Your task to perform on an android device: show emergency info Image 0: 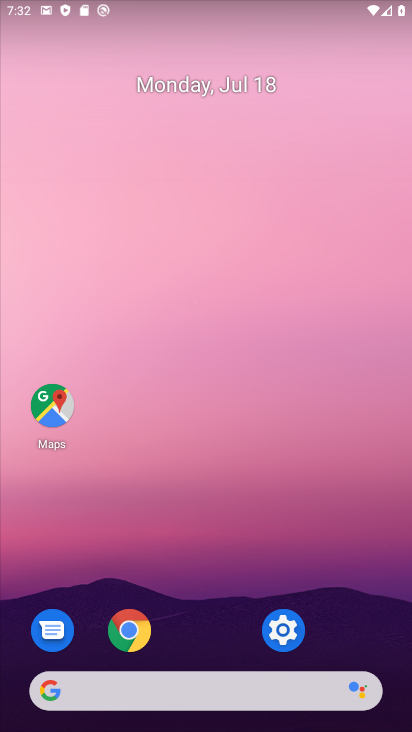
Step 0: click (278, 629)
Your task to perform on an android device: show emergency info Image 1: 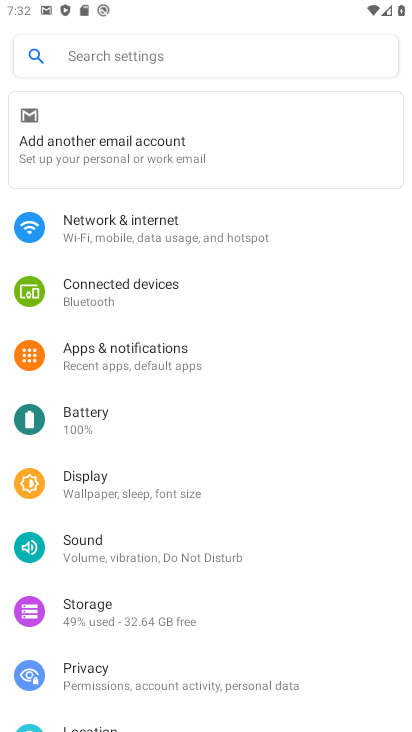
Step 1: click (113, 58)
Your task to perform on an android device: show emergency info Image 2: 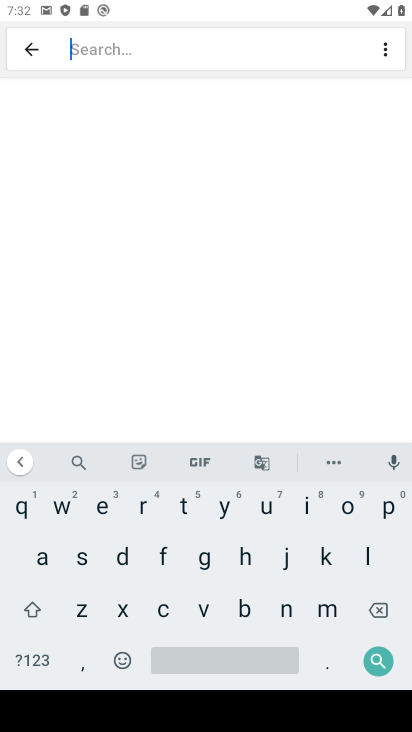
Step 2: click (104, 508)
Your task to perform on an android device: show emergency info Image 3: 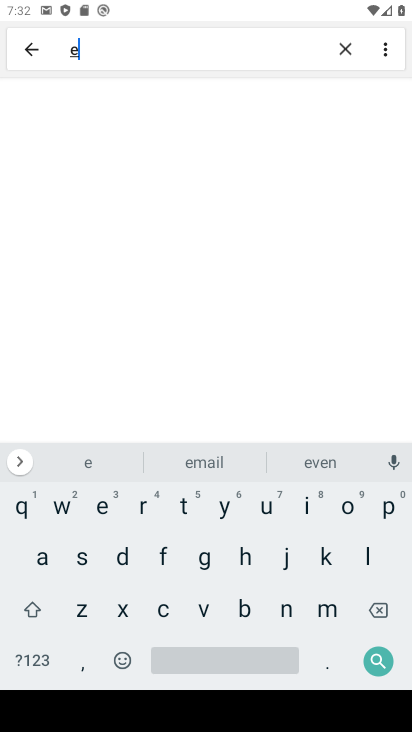
Step 3: click (330, 609)
Your task to perform on an android device: show emergency info Image 4: 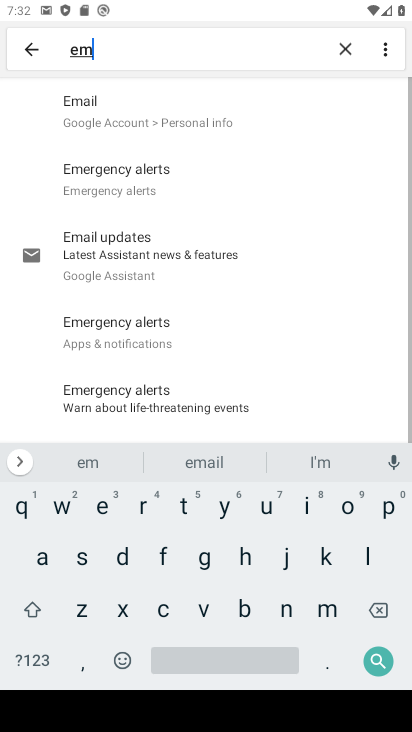
Step 4: click (102, 504)
Your task to perform on an android device: show emergency info Image 5: 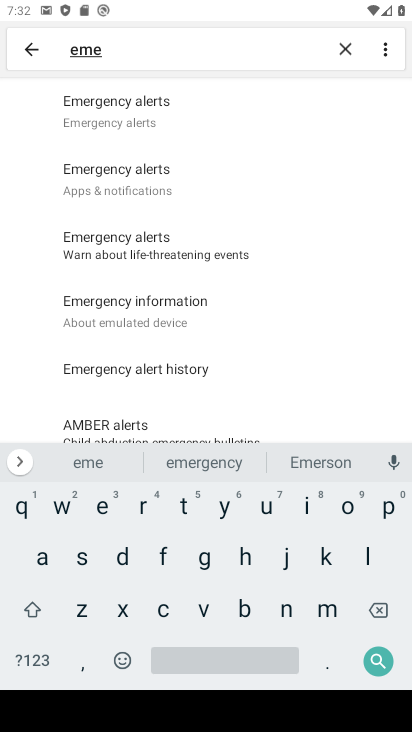
Step 5: click (203, 463)
Your task to perform on an android device: show emergency info Image 6: 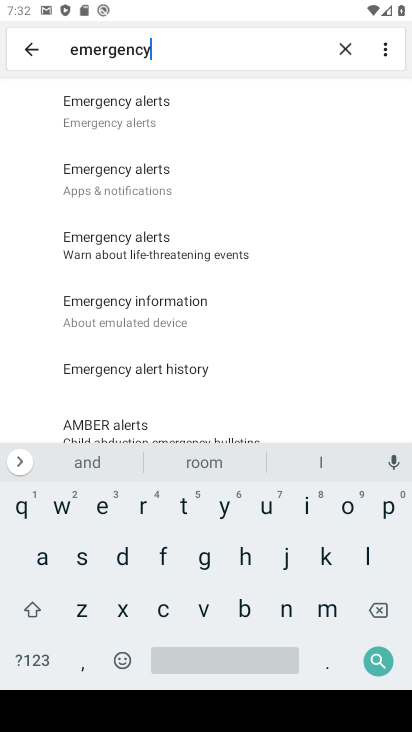
Step 6: click (300, 498)
Your task to perform on an android device: show emergency info Image 7: 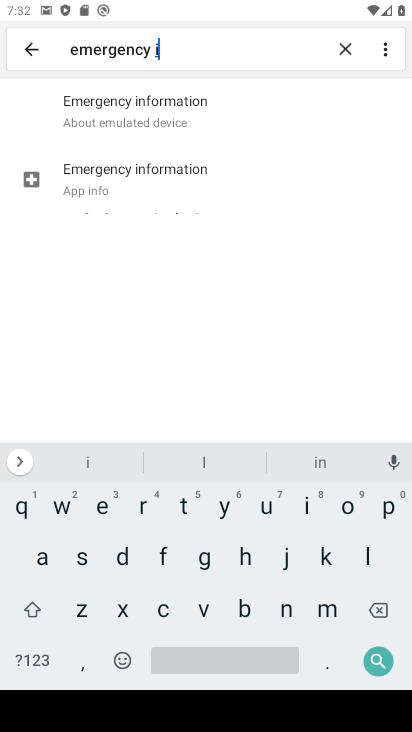
Step 7: click (171, 106)
Your task to perform on an android device: show emergency info Image 8: 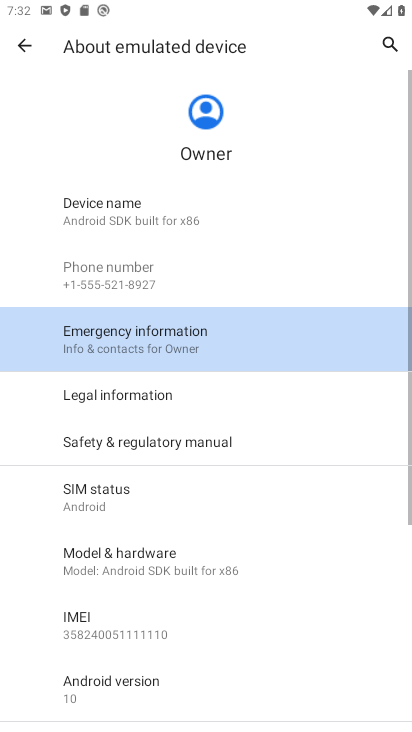
Step 8: click (121, 314)
Your task to perform on an android device: show emergency info Image 9: 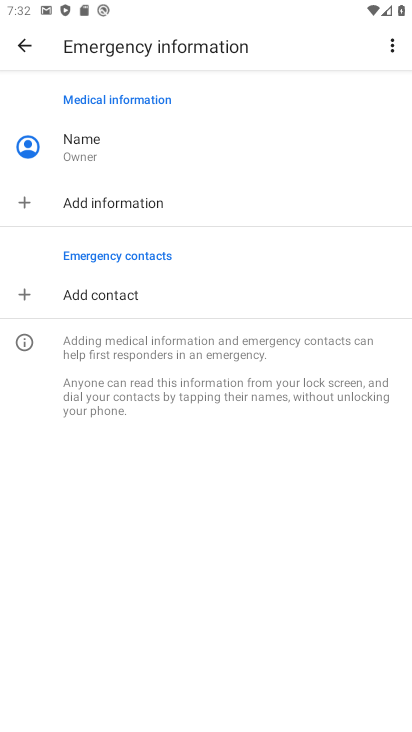
Step 9: task complete